Your task to perform on an android device: turn on bluetooth scan Image 0: 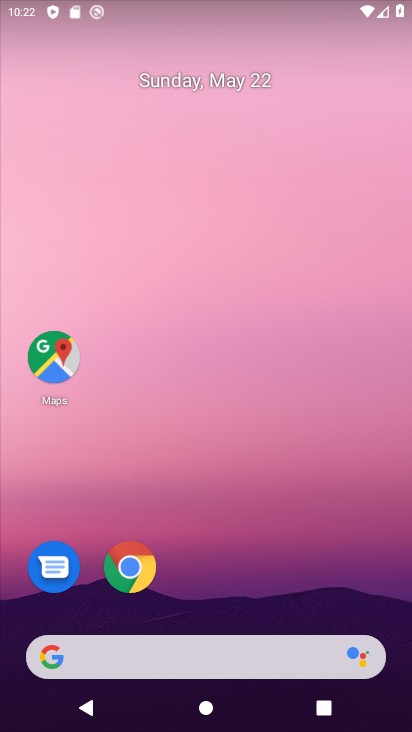
Step 0: drag from (392, 622) to (334, 118)
Your task to perform on an android device: turn on bluetooth scan Image 1: 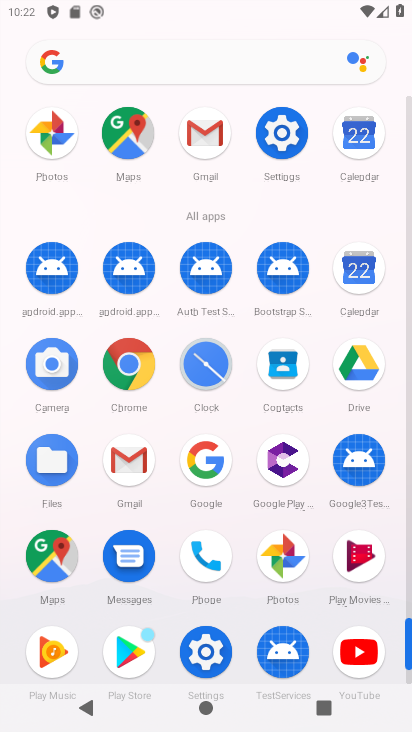
Step 1: click (205, 654)
Your task to perform on an android device: turn on bluetooth scan Image 2: 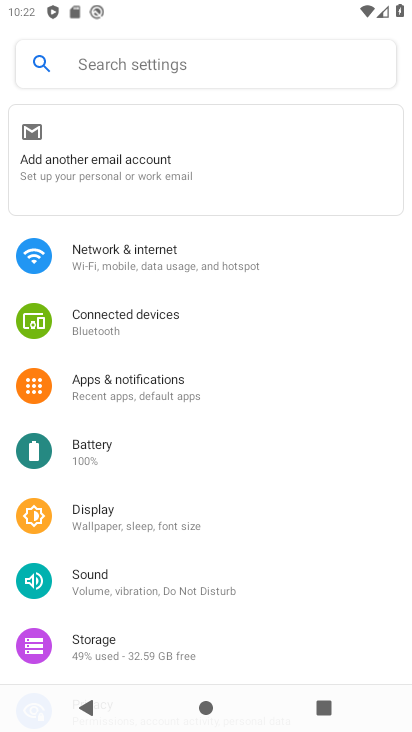
Step 2: drag from (202, 615) to (254, 133)
Your task to perform on an android device: turn on bluetooth scan Image 3: 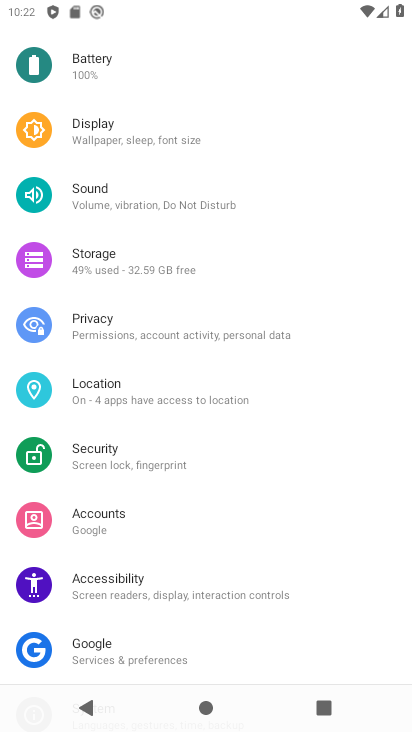
Step 3: click (78, 403)
Your task to perform on an android device: turn on bluetooth scan Image 4: 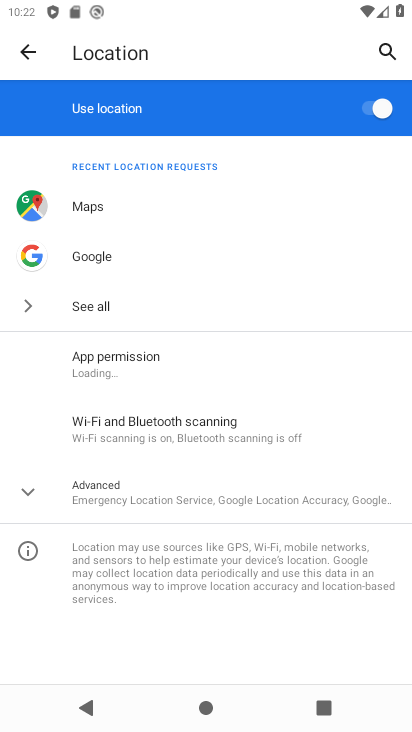
Step 4: click (112, 422)
Your task to perform on an android device: turn on bluetooth scan Image 5: 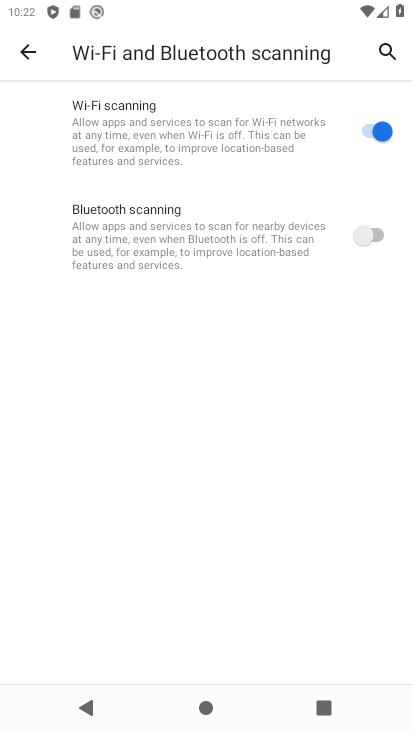
Step 5: click (371, 229)
Your task to perform on an android device: turn on bluetooth scan Image 6: 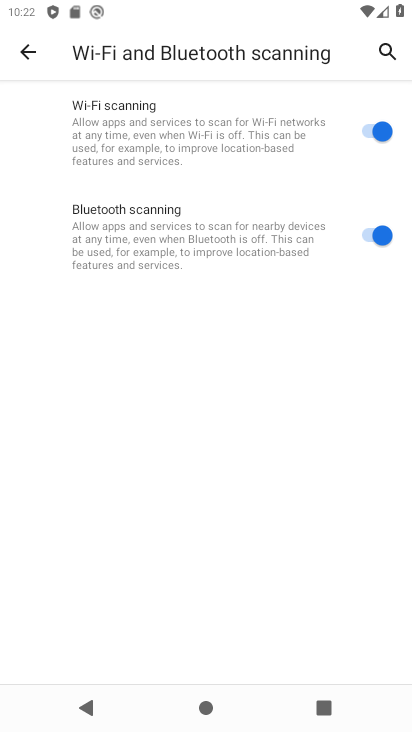
Step 6: task complete